Your task to perform on an android device: Open calendar and show me the third week of next month Image 0: 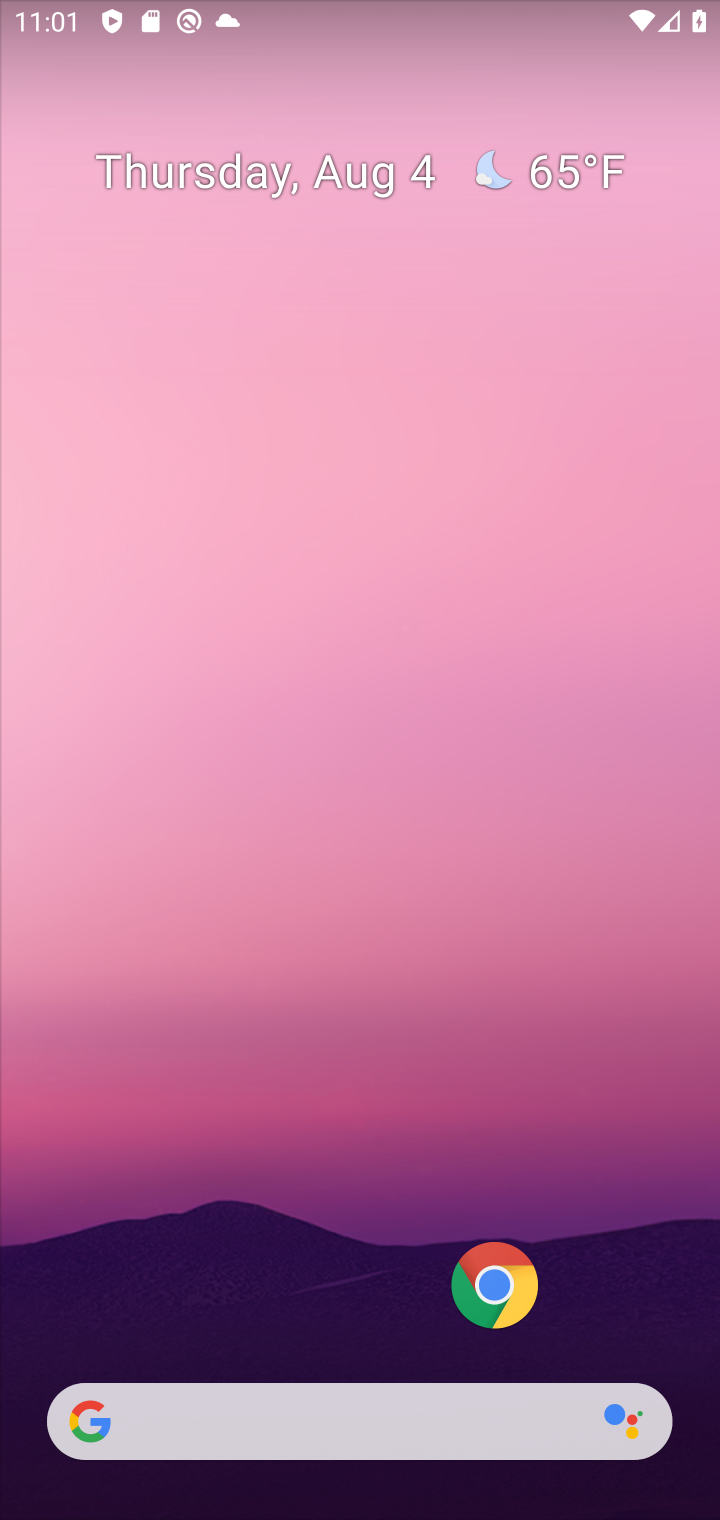
Step 0: drag from (300, 1260) to (282, 331)
Your task to perform on an android device: Open calendar and show me the third week of next month Image 1: 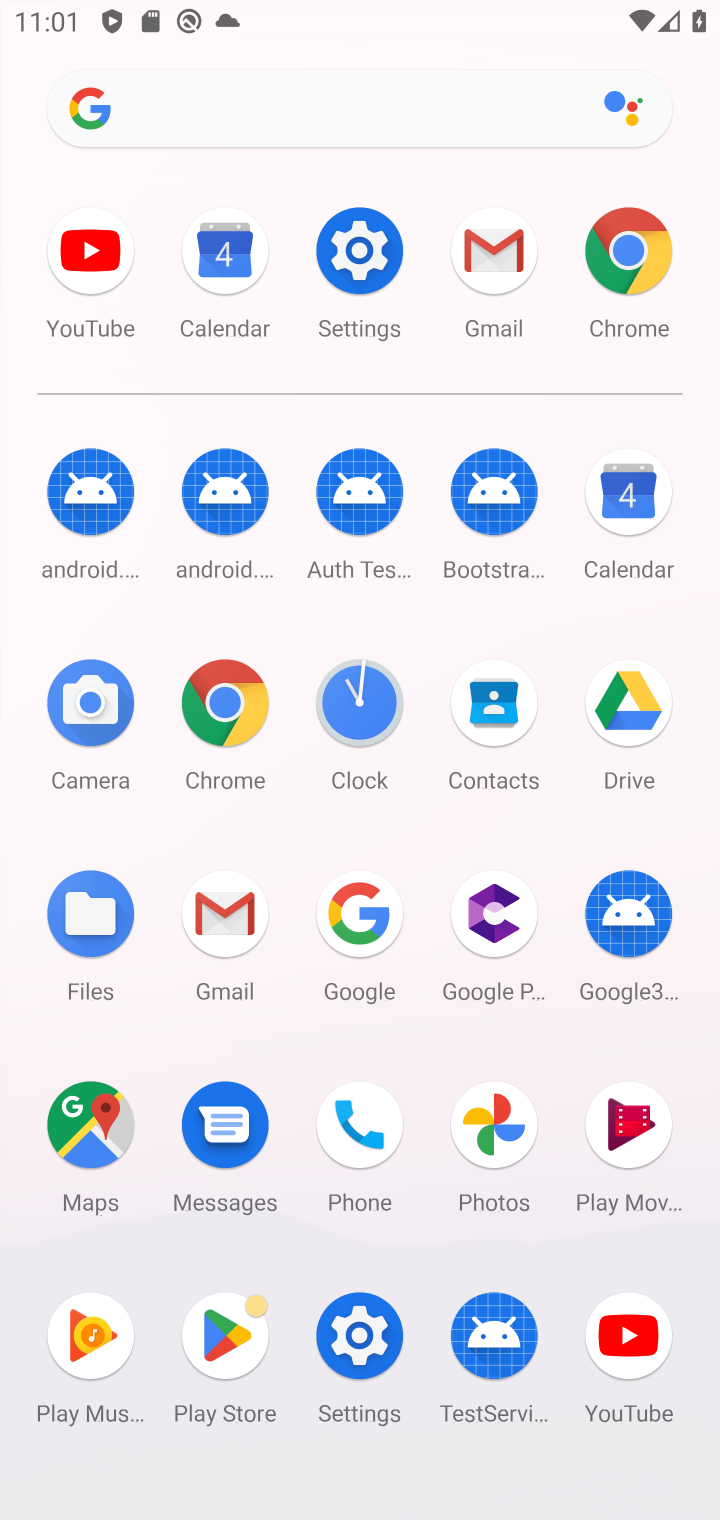
Step 1: click (589, 539)
Your task to perform on an android device: Open calendar and show me the third week of next month Image 2: 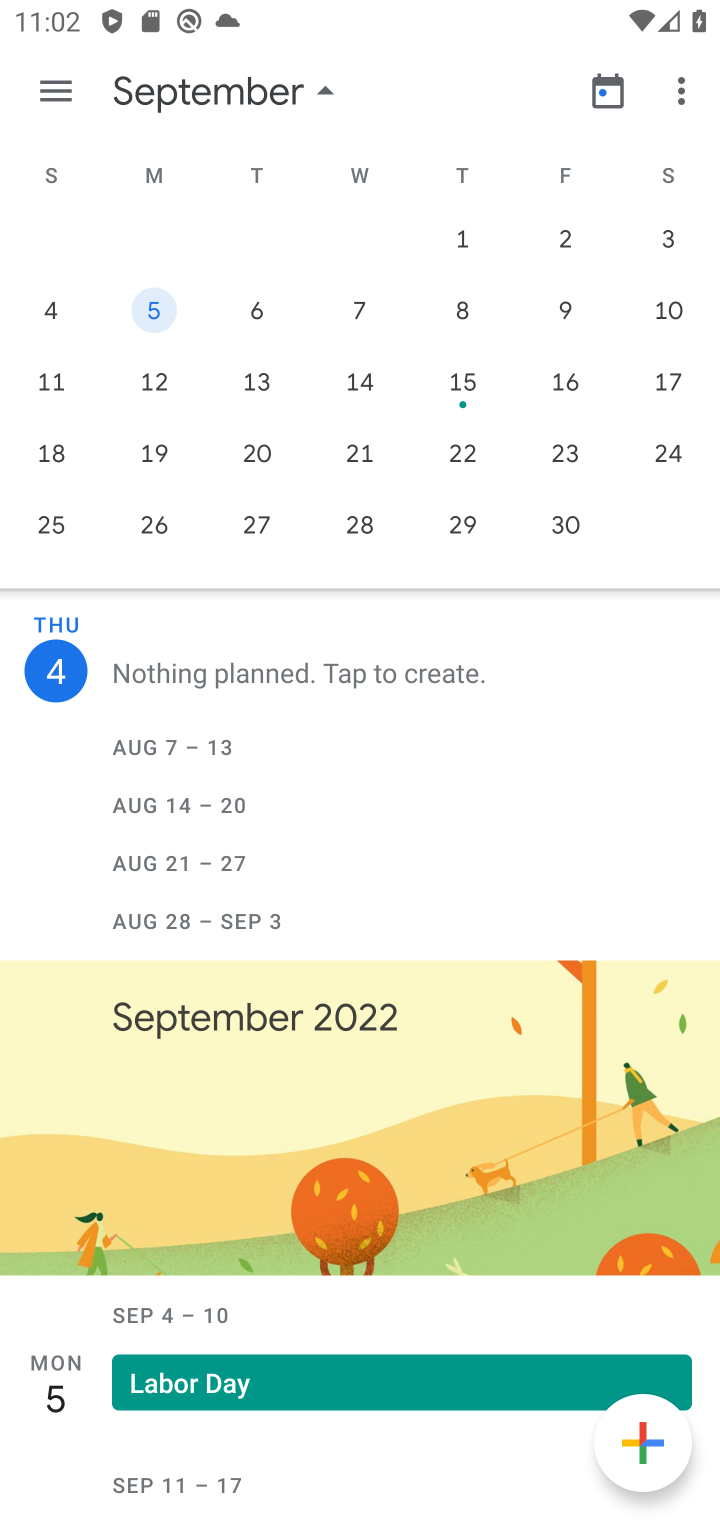
Step 2: click (489, 377)
Your task to perform on an android device: Open calendar and show me the third week of next month Image 3: 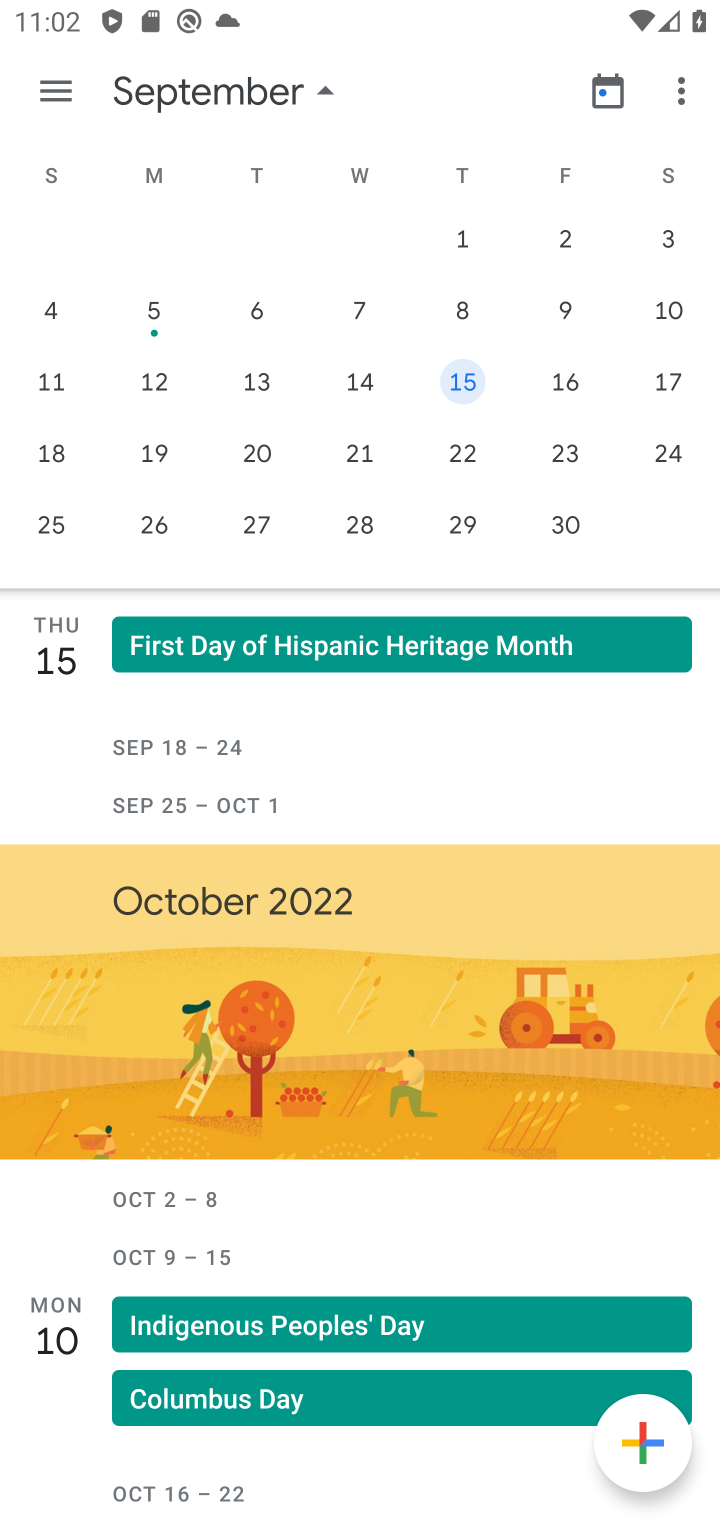
Step 3: task complete